Your task to perform on an android device: toggle sleep mode Image 0: 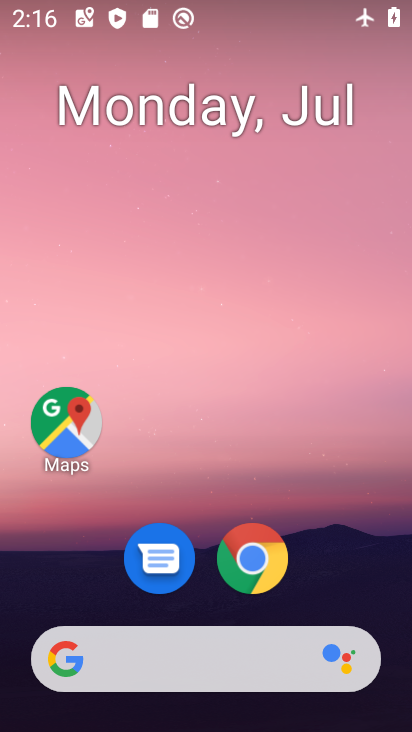
Step 0: press home button
Your task to perform on an android device: toggle sleep mode Image 1: 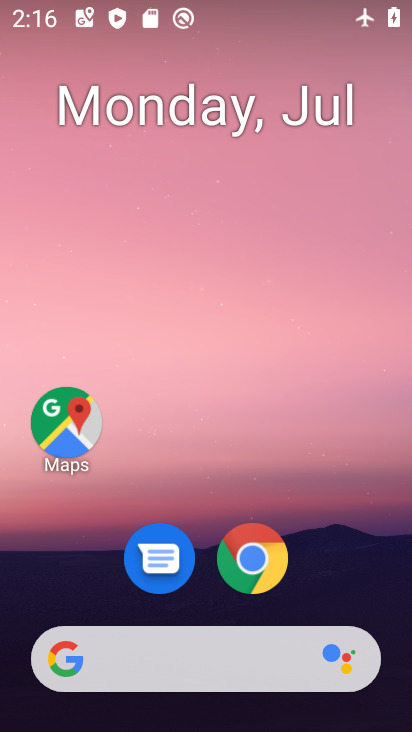
Step 1: drag from (355, 534) to (327, 172)
Your task to perform on an android device: toggle sleep mode Image 2: 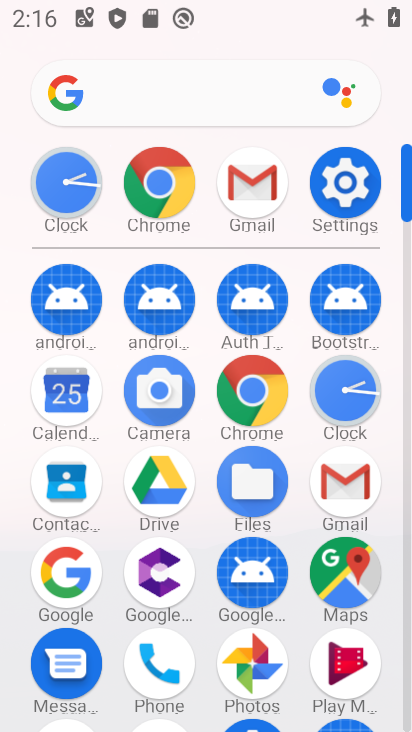
Step 2: click (348, 203)
Your task to perform on an android device: toggle sleep mode Image 3: 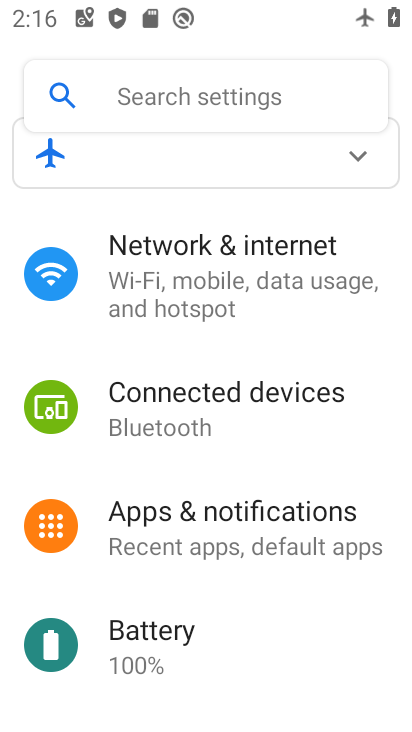
Step 3: drag from (302, 566) to (297, 311)
Your task to perform on an android device: toggle sleep mode Image 4: 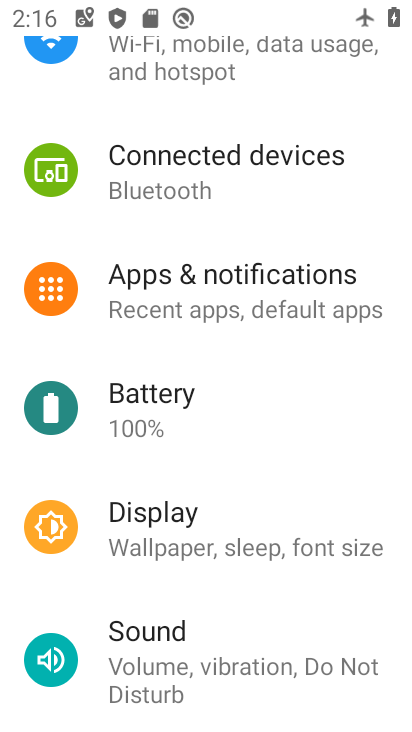
Step 4: drag from (325, 537) to (342, 214)
Your task to perform on an android device: toggle sleep mode Image 5: 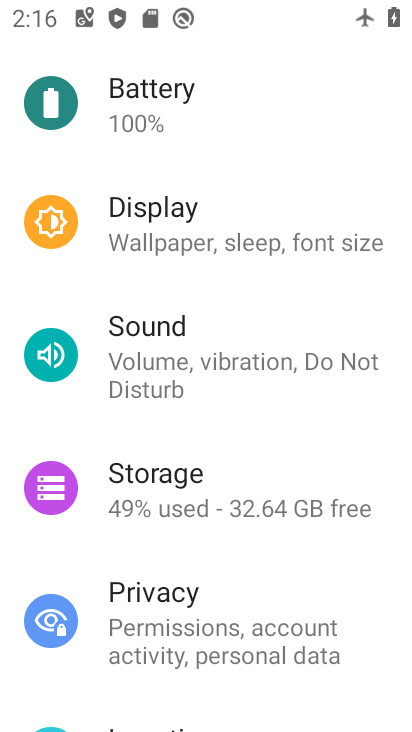
Step 5: drag from (336, 518) to (338, 315)
Your task to perform on an android device: toggle sleep mode Image 6: 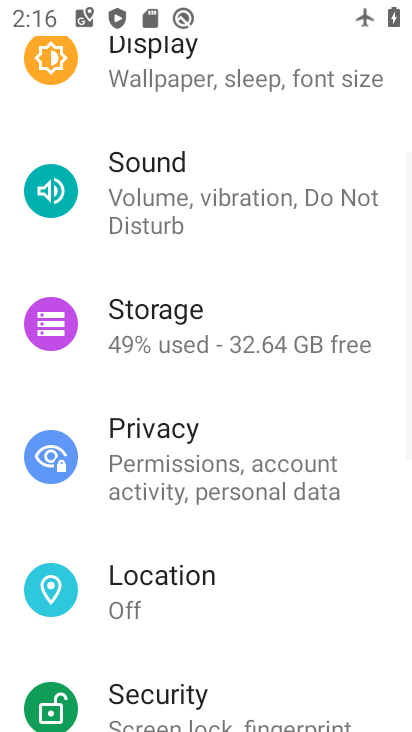
Step 6: drag from (343, 560) to (340, 259)
Your task to perform on an android device: toggle sleep mode Image 7: 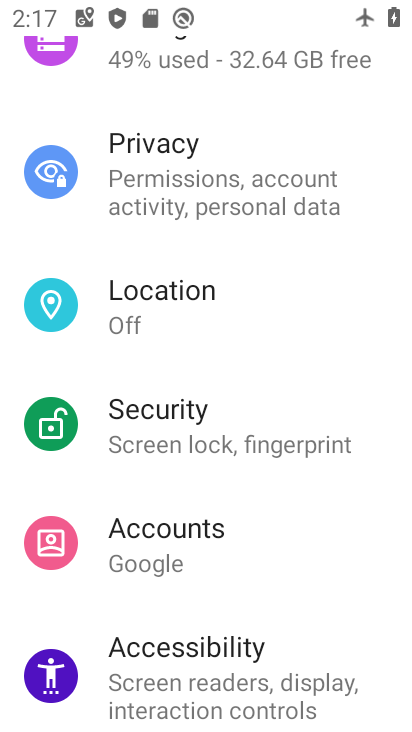
Step 7: drag from (326, 571) to (326, 442)
Your task to perform on an android device: toggle sleep mode Image 8: 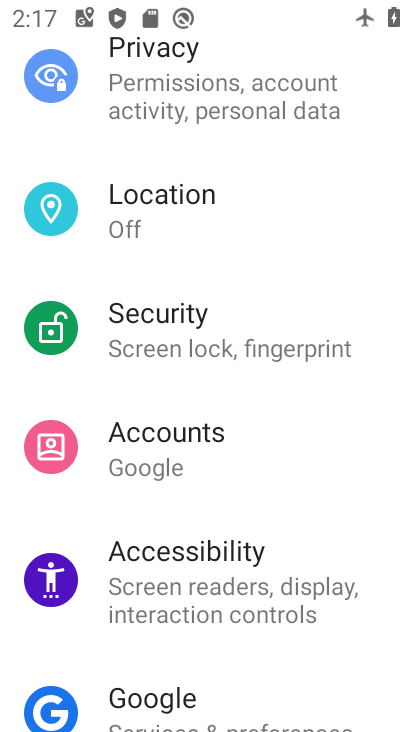
Step 8: drag from (334, 519) to (353, 374)
Your task to perform on an android device: toggle sleep mode Image 9: 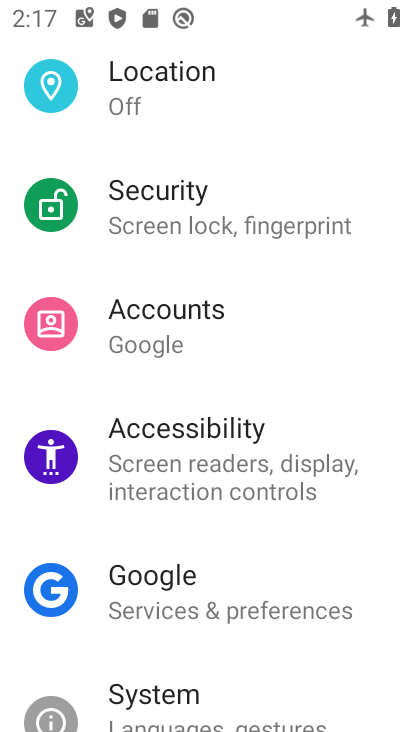
Step 9: drag from (341, 549) to (348, 693)
Your task to perform on an android device: toggle sleep mode Image 10: 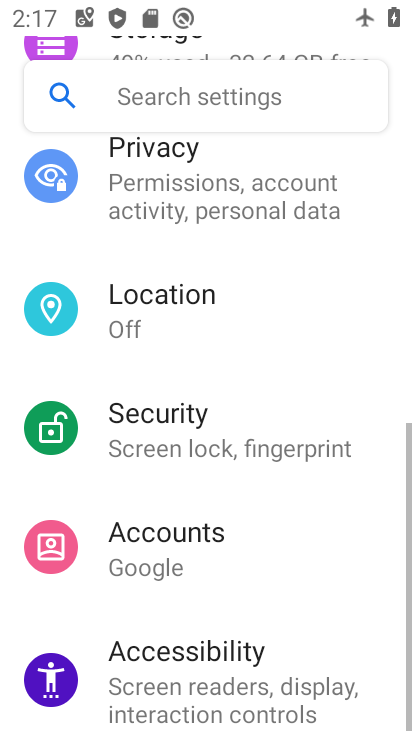
Step 10: click (334, 423)
Your task to perform on an android device: toggle sleep mode Image 11: 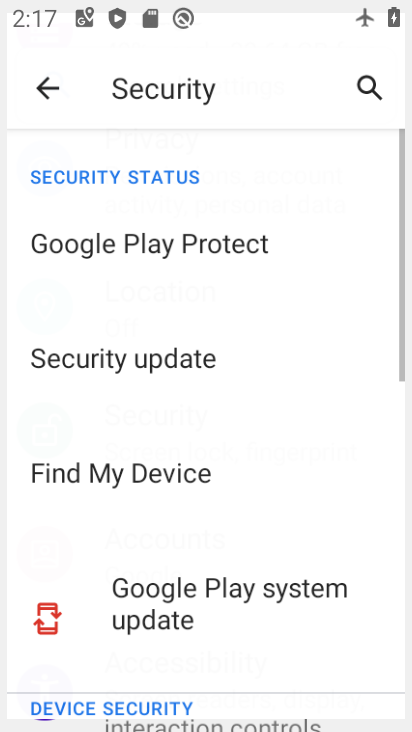
Step 11: drag from (328, 261) to (309, 445)
Your task to perform on an android device: toggle sleep mode Image 12: 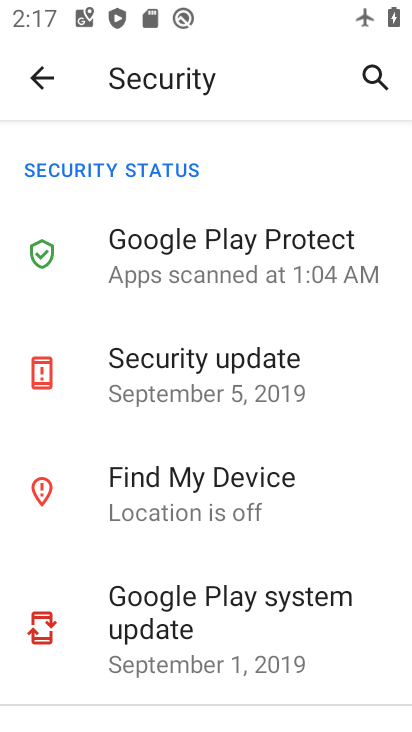
Step 12: click (47, 74)
Your task to perform on an android device: toggle sleep mode Image 13: 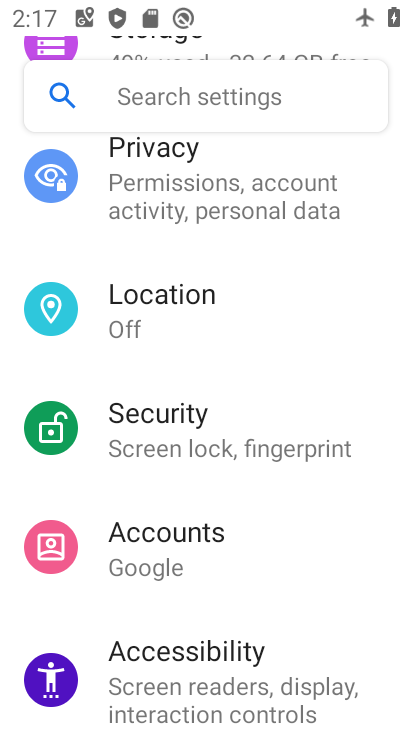
Step 13: drag from (325, 312) to (319, 487)
Your task to perform on an android device: toggle sleep mode Image 14: 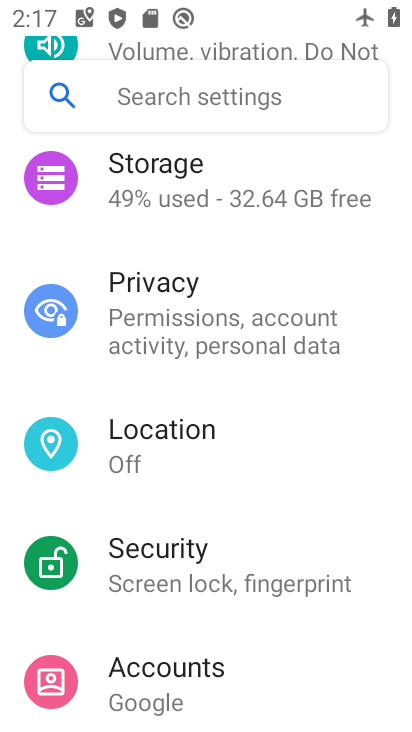
Step 14: drag from (327, 243) to (307, 475)
Your task to perform on an android device: toggle sleep mode Image 15: 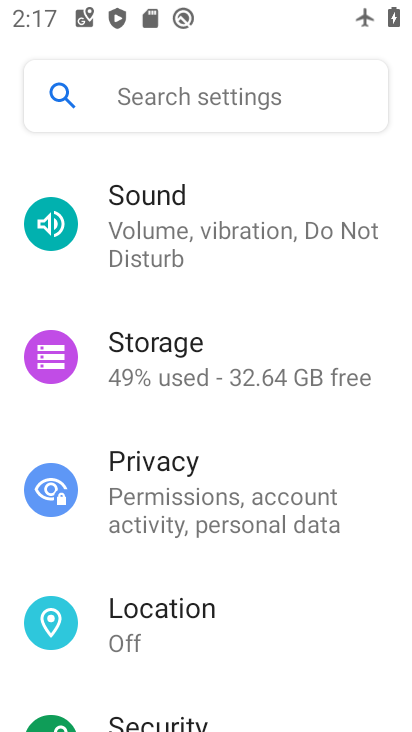
Step 15: drag from (272, 179) to (270, 395)
Your task to perform on an android device: toggle sleep mode Image 16: 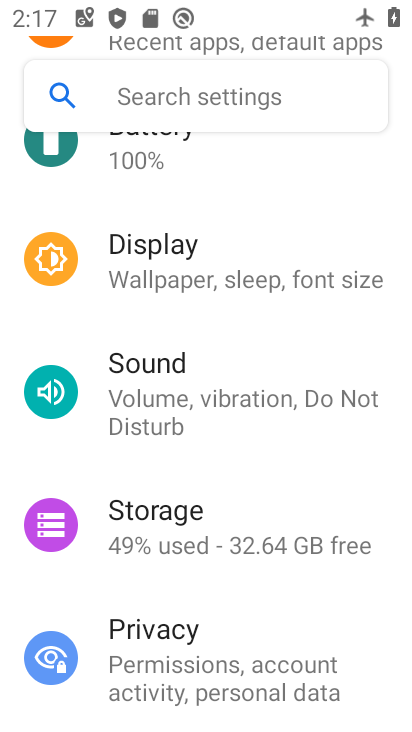
Step 16: click (246, 263)
Your task to perform on an android device: toggle sleep mode Image 17: 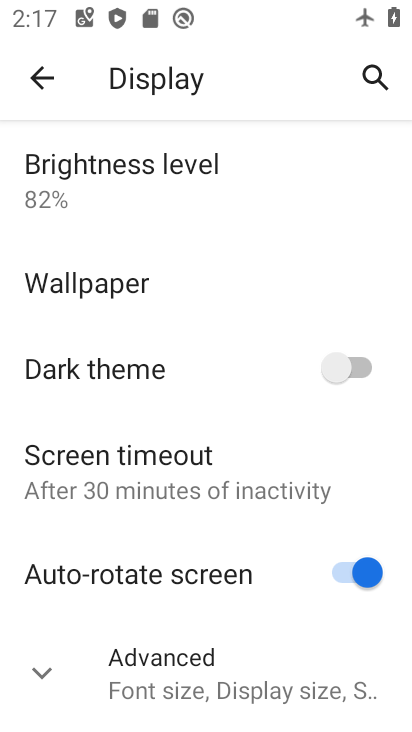
Step 17: click (244, 659)
Your task to perform on an android device: toggle sleep mode Image 18: 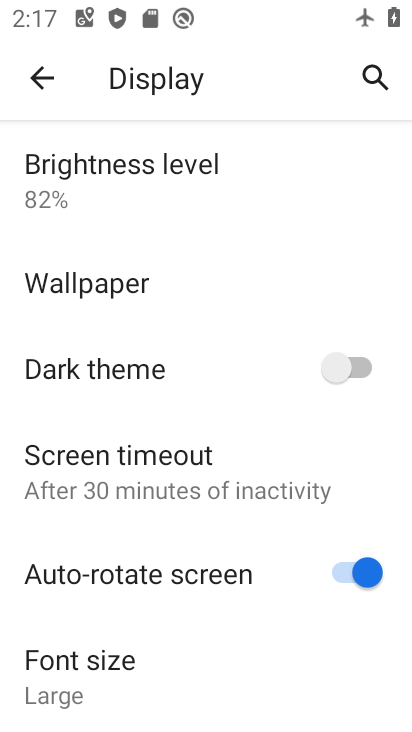
Step 18: task complete